Your task to perform on an android device: Show me recent news Image 0: 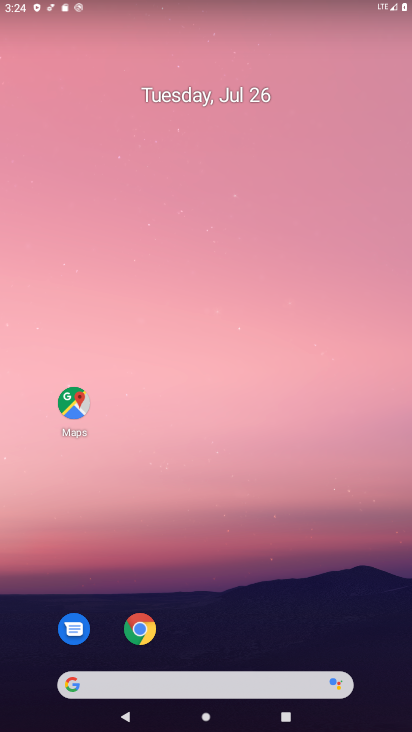
Step 0: drag from (1, 212) to (408, 484)
Your task to perform on an android device: Show me recent news Image 1: 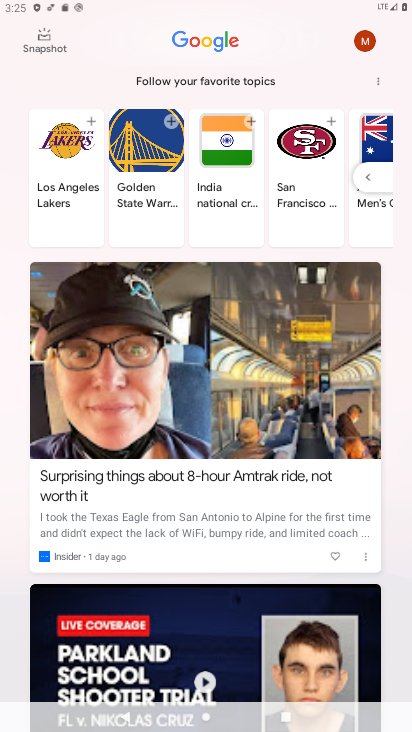
Step 1: task complete